Your task to perform on an android device: Open Amazon Image 0: 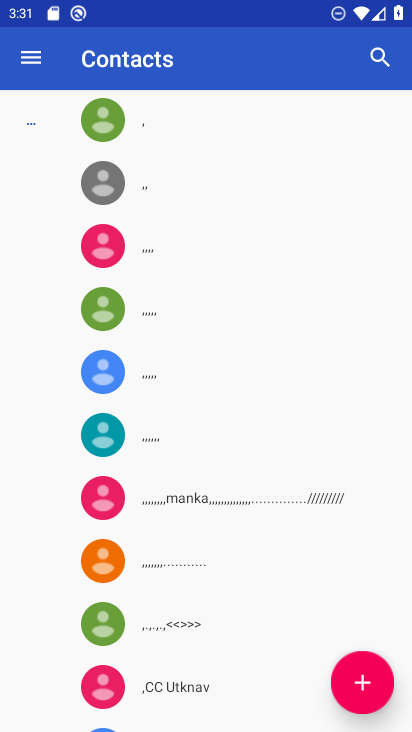
Step 0: press back button
Your task to perform on an android device: Open Amazon Image 1: 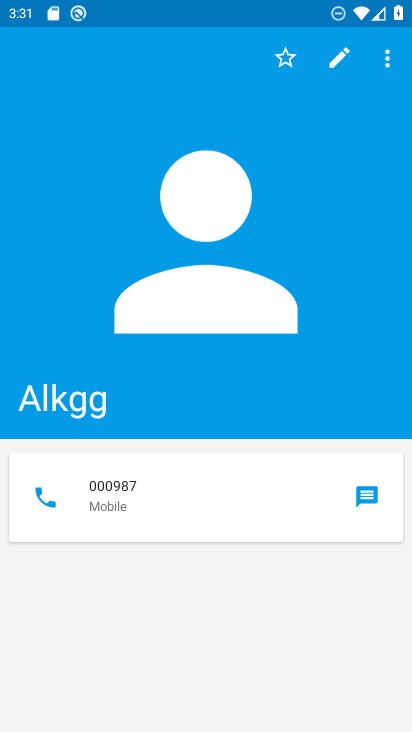
Step 1: press back button
Your task to perform on an android device: Open Amazon Image 2: 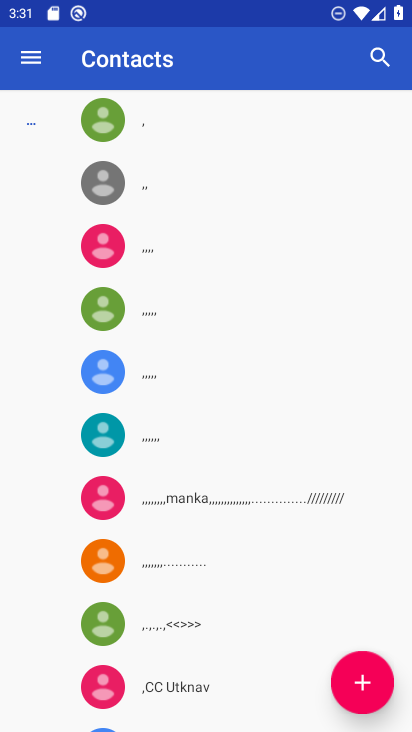
Step 2: press home button
Your task to perform on an android device: Open Amazon Image 3: 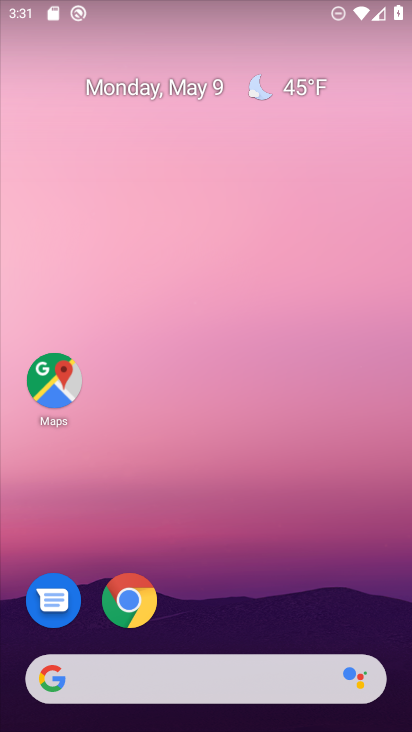
Step 3: drag from (271, 606) to (240, 2)
Your task to perform on an android device: Open Amazon Image 4: 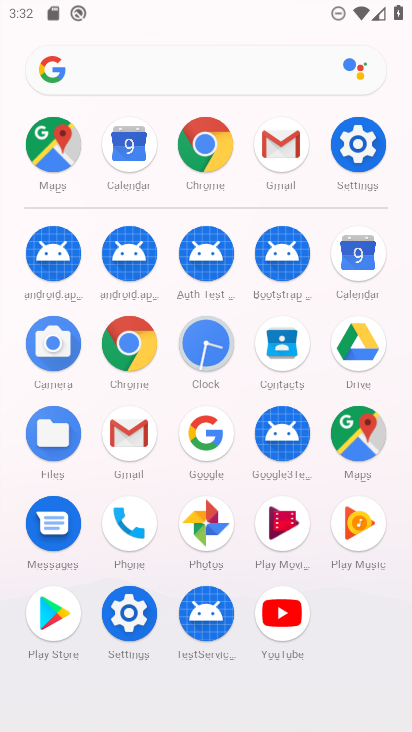
Step 4: drag from (10, 485) to (0, 117)
Your task to perform on an android device: Open Amazon Image 5: 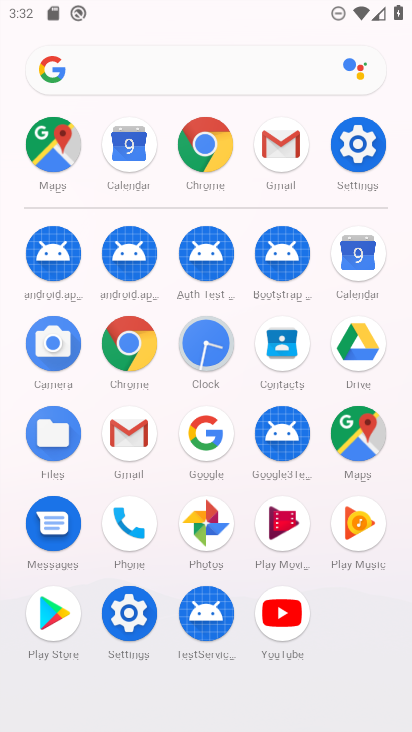
Step 5: click (135, 335)
Your task to perform on an android device: Open Amazon Image 6: 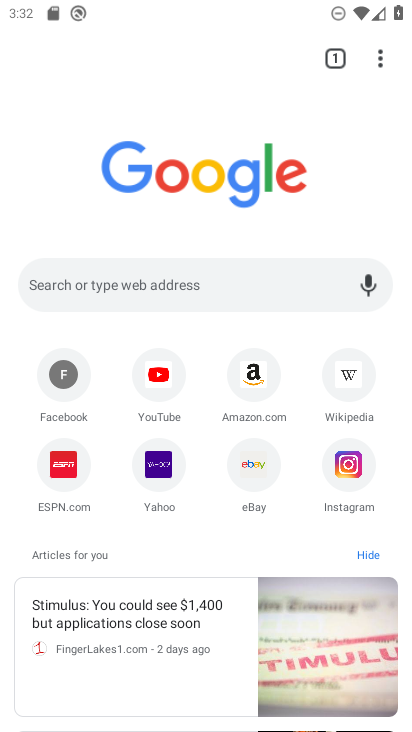
Step 6: click (246, 371)
Your task to perform on an android device: Open Amazon Image 7: 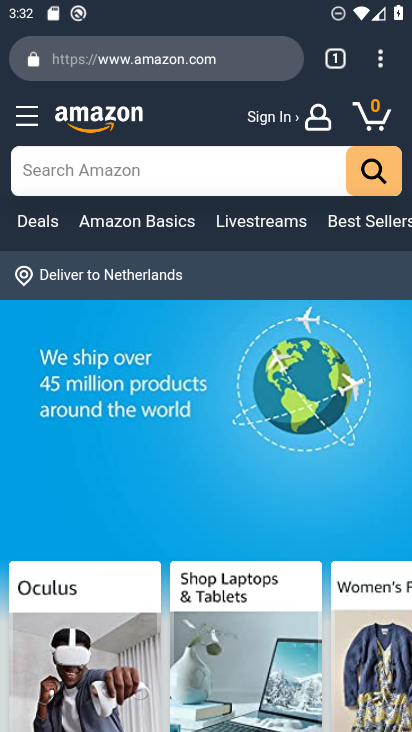
Step 7: task complete